Your task to perform on an android device: Open Amazon Image 0: 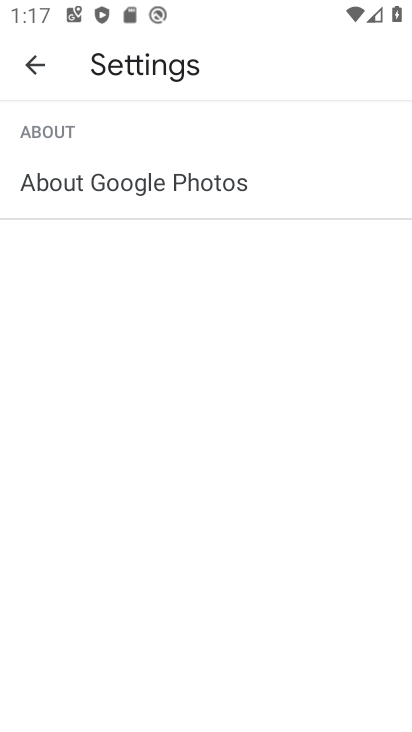
Step 0: press home button
Your task to perform on an android device: Open Amazon Image 1: 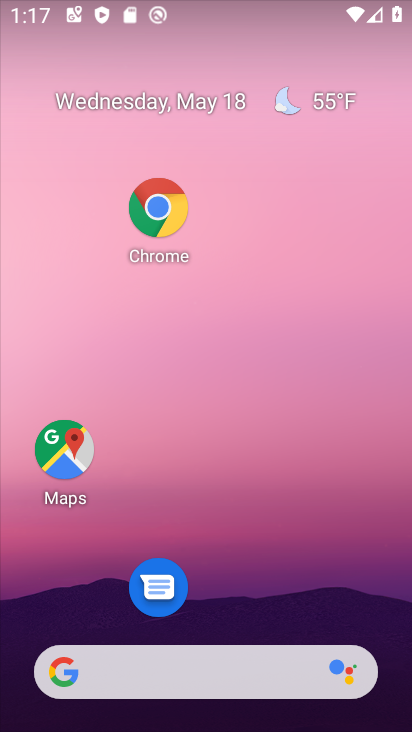
Step 1: click (177, 246)
Your task to perform on an android device: Open Amazon Image 2: 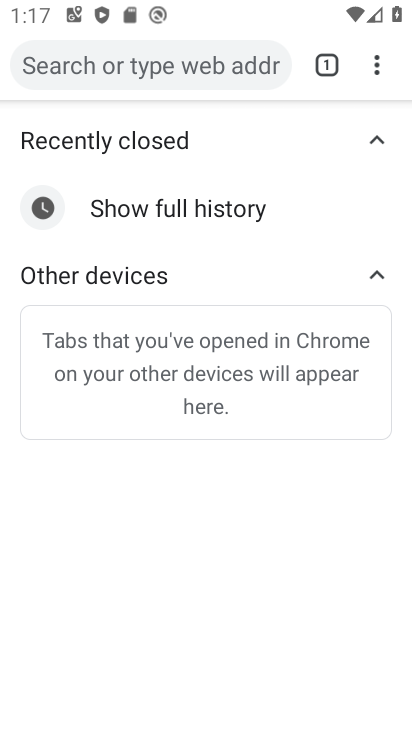
Step 2: press back button
Your task to perform on an android device: Open Amazon Image 3: 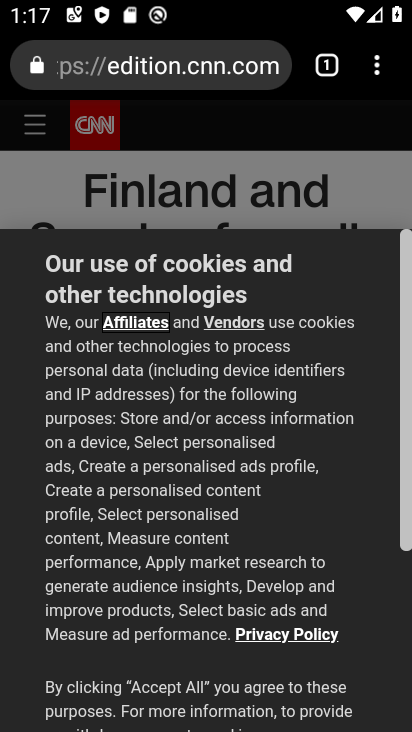
Step 3: press back button
Your task to perform on an android device: Open Amazon Image 4: 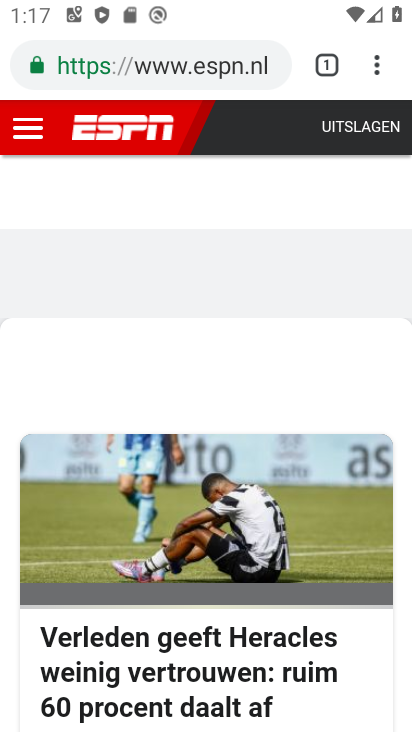
Step 4: press back button
Your task to perform on an android device: Open Amazon Image 5: 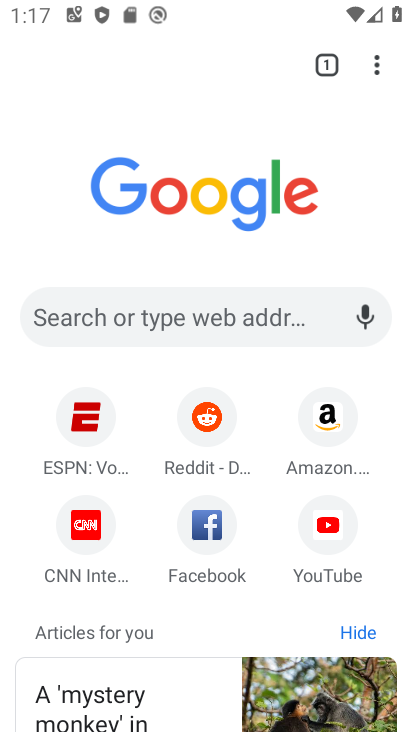
Step 5: click (325, 414)
Your task to perform on an android device: Open Amazon Image 6: 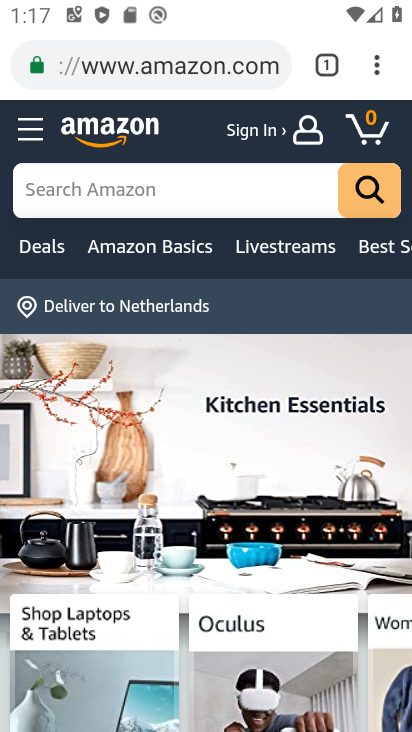
Step 6: task complete